Your task to perform on an android device: Turn on the flashlight Image 0: 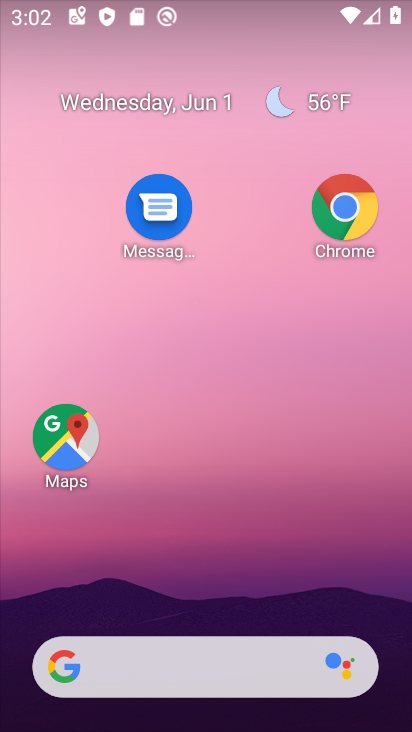
Step 0: drag from (177, 546) to (237, 174)
Your task to perform on an android device: Turn on the flashlight Image 1: 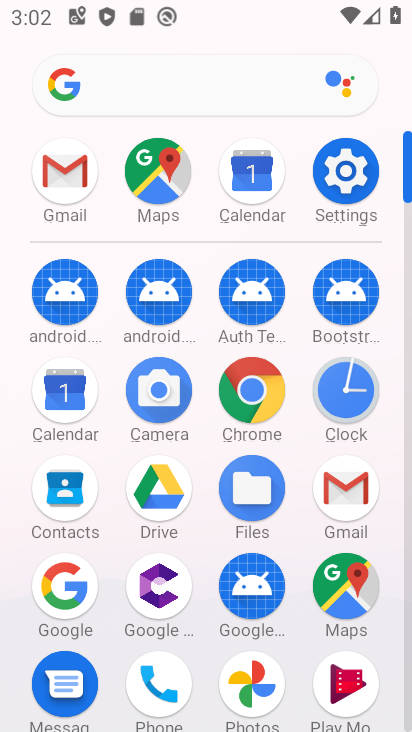
Step 1: click (351, 159)
Your task to perform on an android device: Turn on the flashlight Image 2: 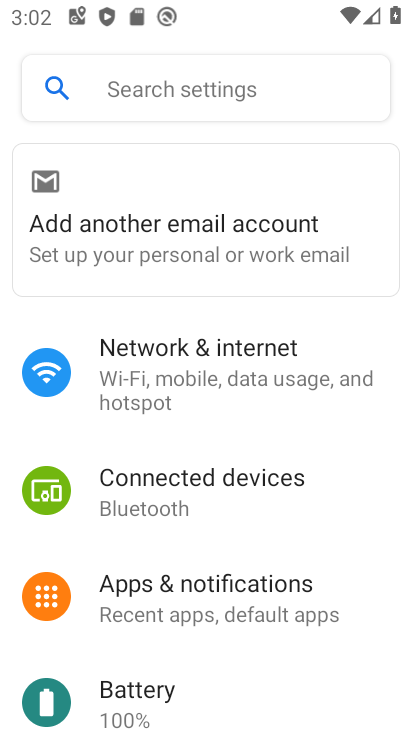
Step 2: click (124, 95)
Your task to perform on an android device: Turn on the flashlight Image 3: 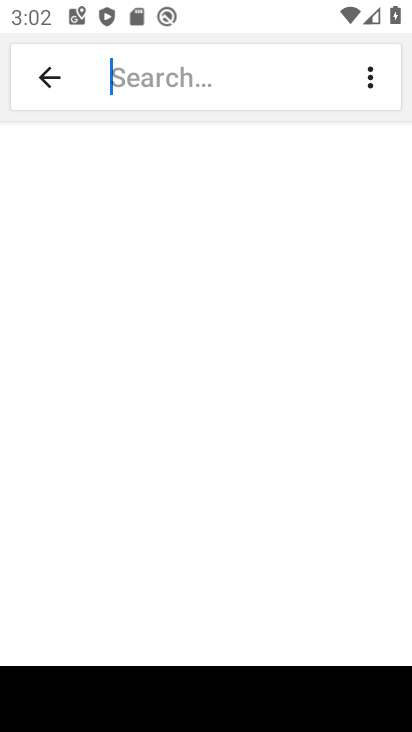
Step 3: type "flashlight"
Your task to perform on an android device: Turn on the flashlight Image 4: 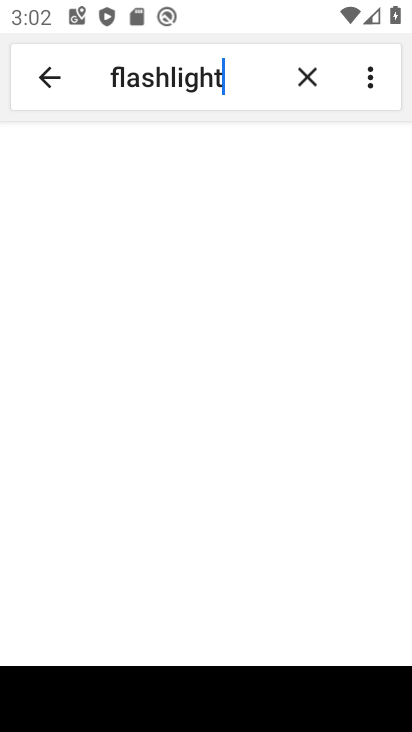
Step 4: type ""
Your task to perform on an android device: Turn on the flashlight Image 5: 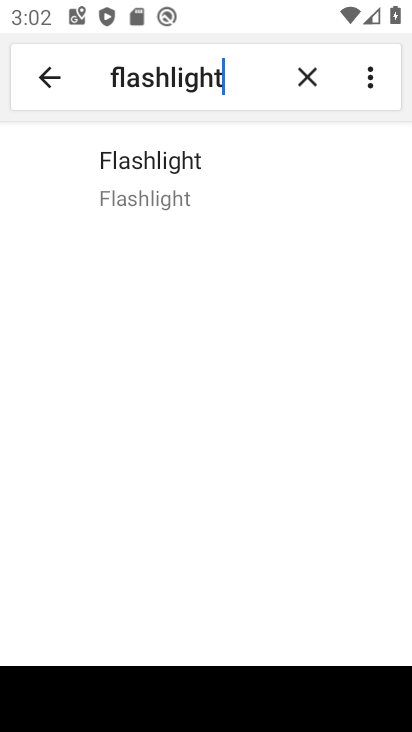
Step 5: click (215, 187)
Your task to perform on an android device: Turn on the flashlight Image 6: 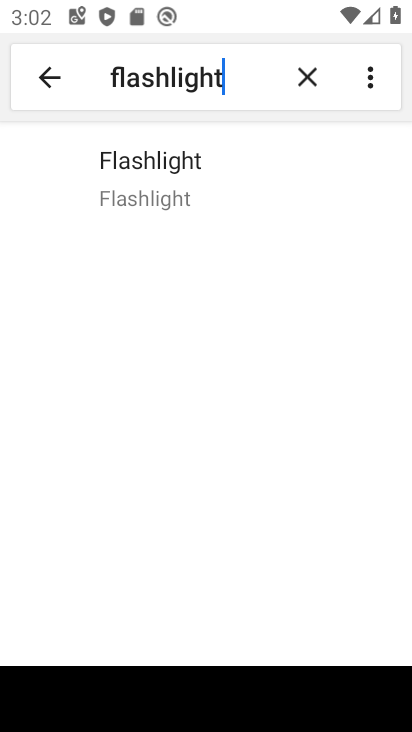
Step 6: click (217, 176)
Your task to perform on an android device: Turn on the flashlight Image 7: 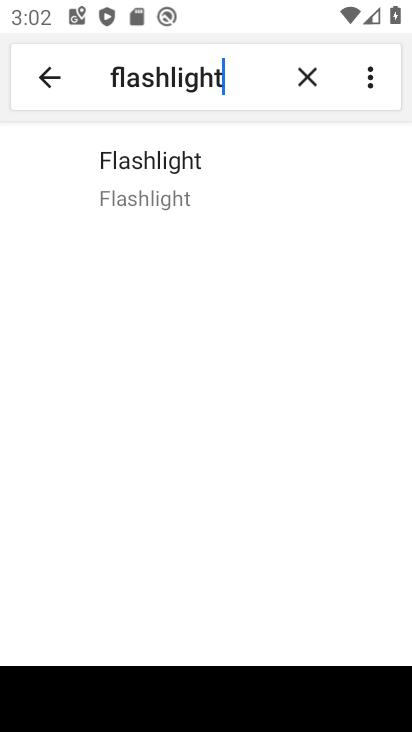
Step 7: task complete